Your task to perform on an android device: change the clock display to analog Image 0: 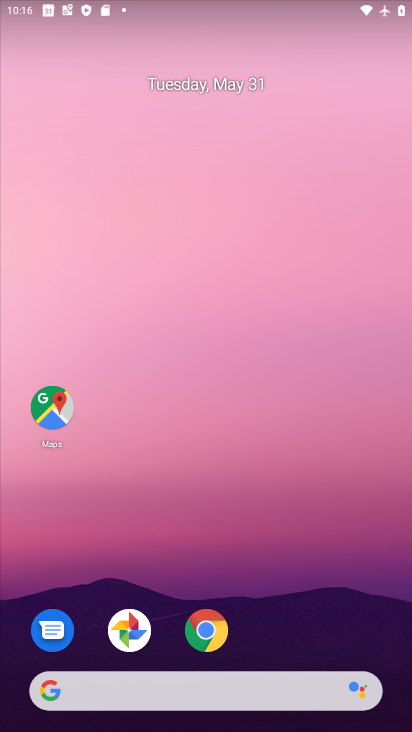
Step 0: drag from (272, 491) to (258, 104)
Your task to perform on an android device: change the clock display to analog Image 1: 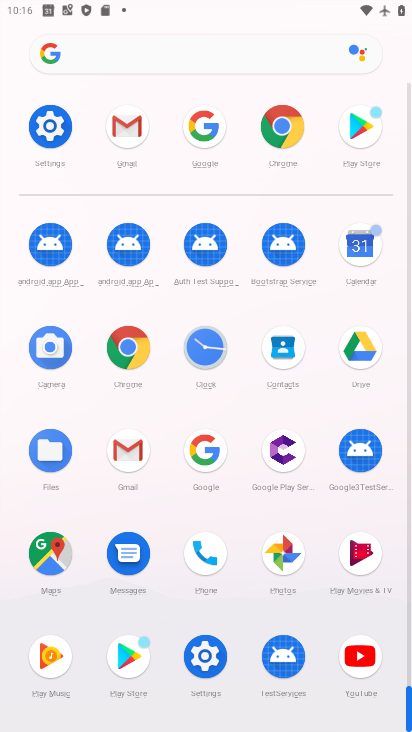
Step 1: click (195, 344)
Your task to perform on an android device: change the clock display to analog Image 2: 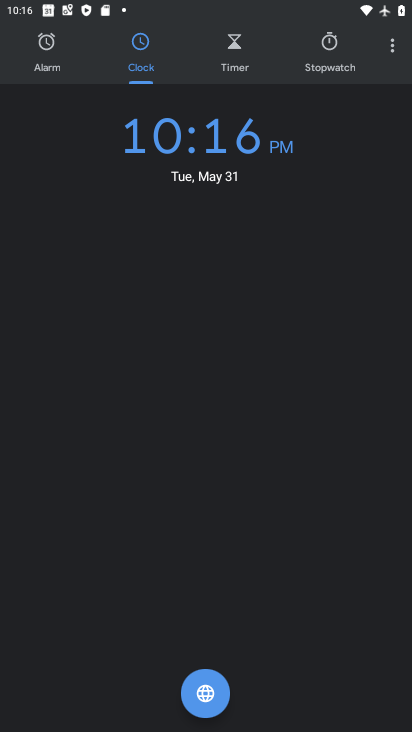
Step 2: click (389, 38)
Your task to perform on an android device: change the clock display to analog Image 3: 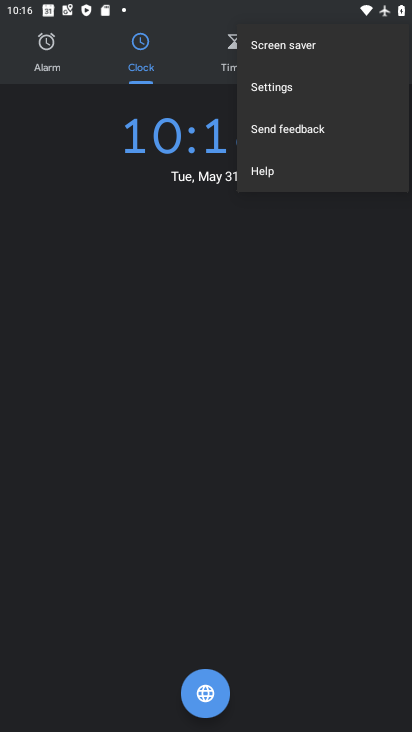
Step 3: click (285, 80)
Your task to perform on an android device: change the clock display to analog Image 4: 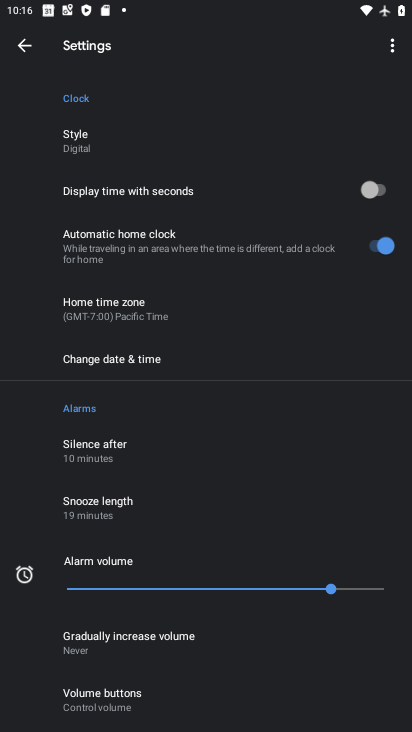
Step 4: click (107, 139)
Your task to perform on an android device: change the clock display to analog Image 5: 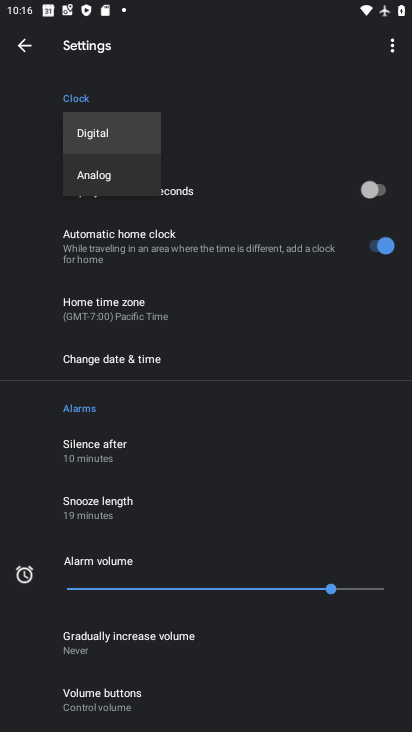
Step 5: click (114, 162)
Your task to perform on an android device: change the clock display to analog Image 6: 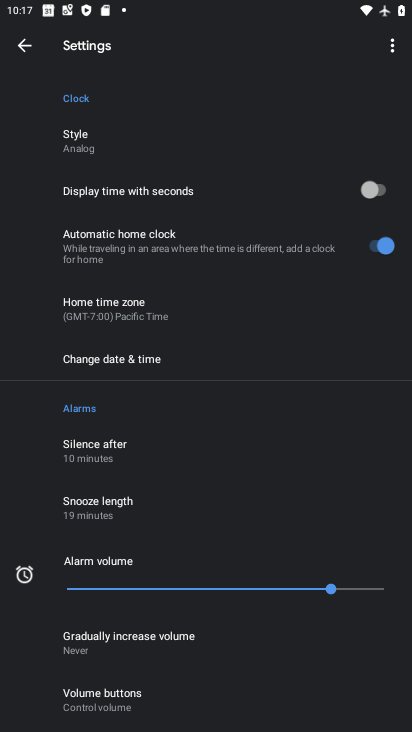
Step 6: task complete